Your task to perform on an android device: Open the map Image 0: 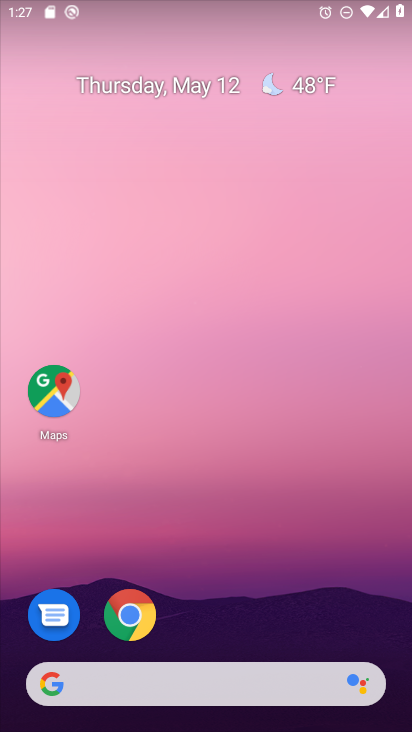
Step 0: drag from (321, 629) to (337, 109)
Your task to perform on an android device: Open the map Image 1: 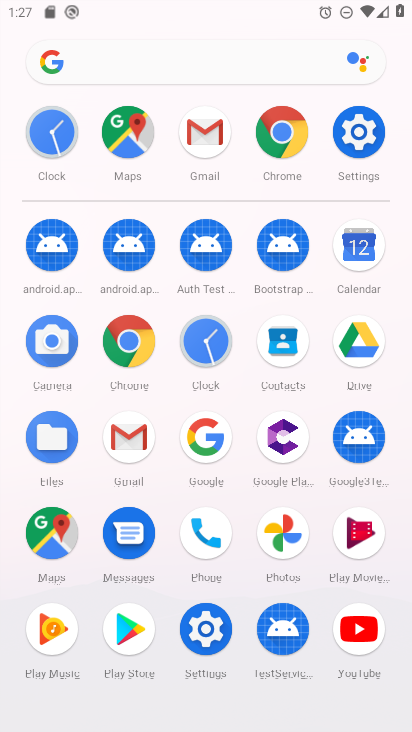
Step 1: click (52, 535)
Your task to perform on an android device: Open the map Image 2: 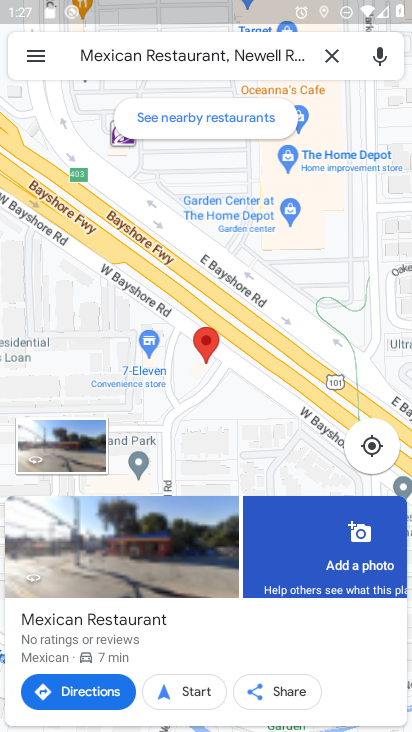
Step 2: task complete